Your task to perform on an android device: turn on bluetooth scan Image 0: 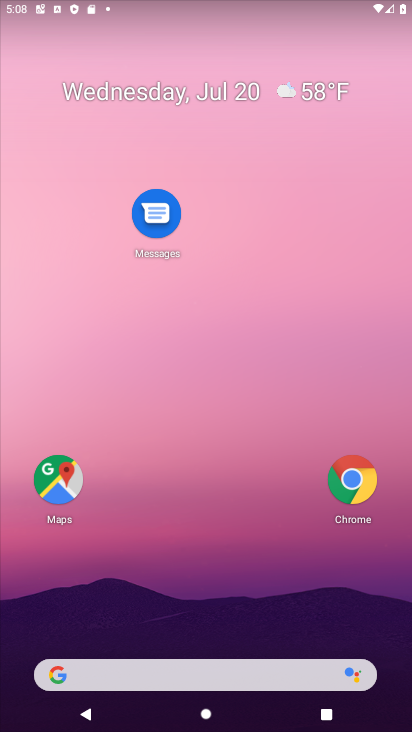
Step 0: drag from (171, 585) to (199, 8)
Your task to perform on an android device: turn on bluetooth scan Image 1: 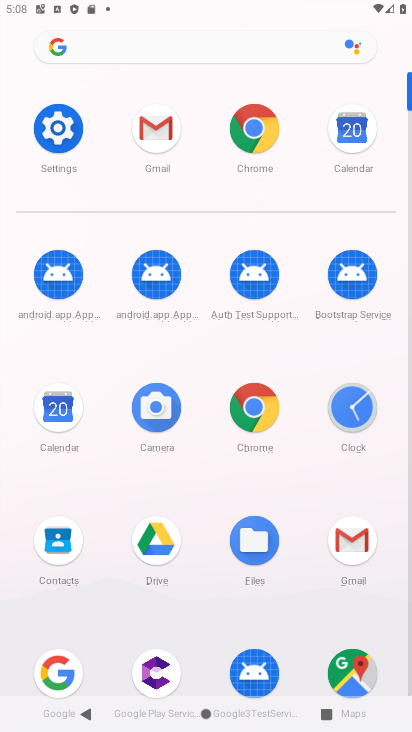
Step 1: click (62, 123)
Your task to perform on an android device: turn on bluetooth scan Image 2: 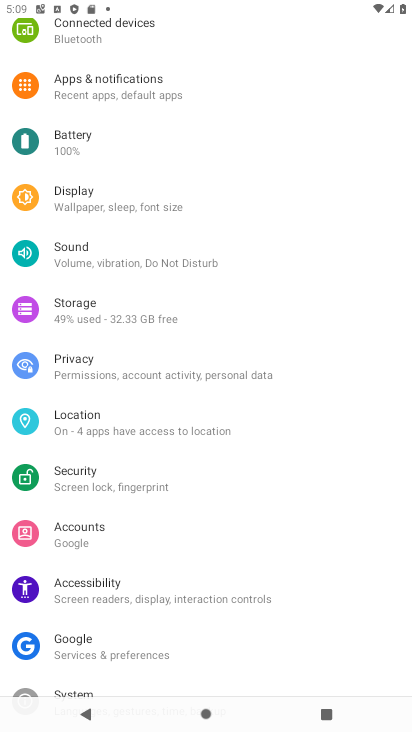
Step 2: click (61, 418)
Your task to perform on an android device: turn on bluetooth scan Image 3: 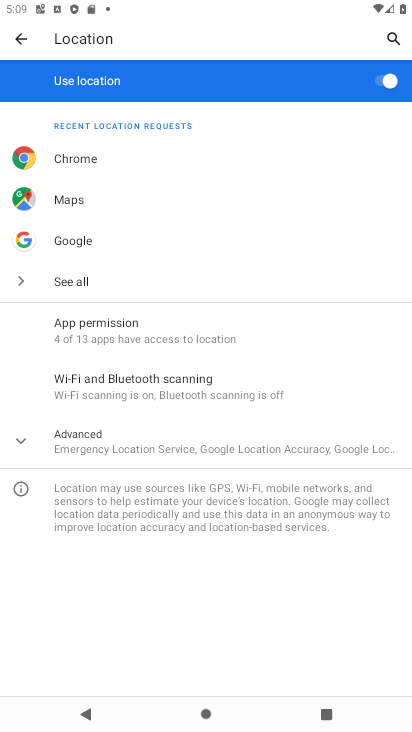
Step 3: click (67, 443)
Your task to perform on an android device: turn on bluetooth scan Image 4: 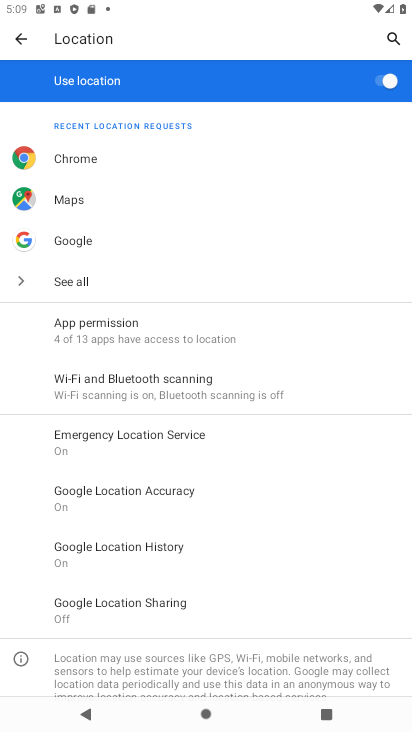
Step 4: drag from (278, 580) to (297, 371)
Your task to perform on an android device: turn on bluetooth scan Image 5: 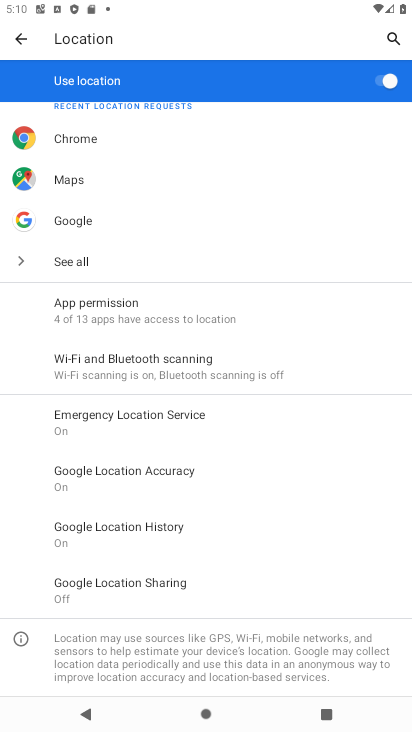
Step 5: click (155, 374)
Your task to perform on an android device: turn on bluetooth scan Image 6: 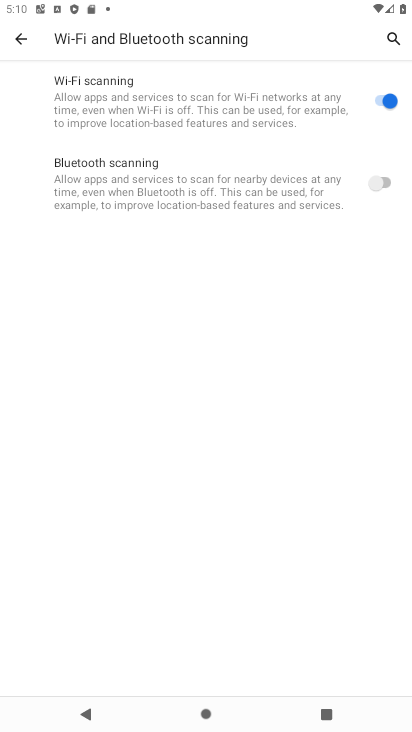
Step 6: click (388, 182)
Your task to perform on an android device: turn on bluetooth scan Image 7: 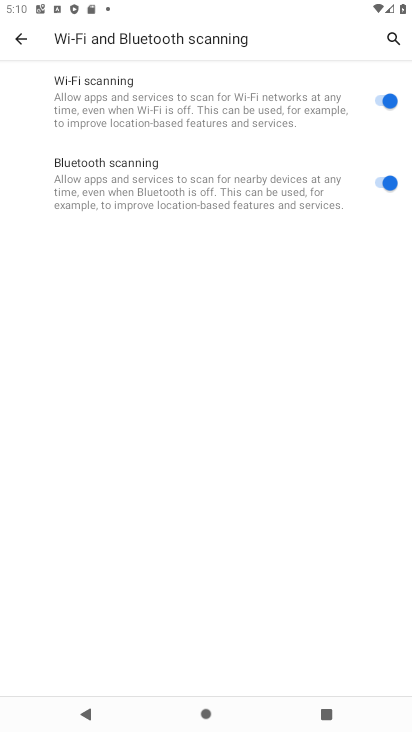
Step 7: task complete